Your task to perform on an android device: find snoozed emails in the gmail app Image 0: 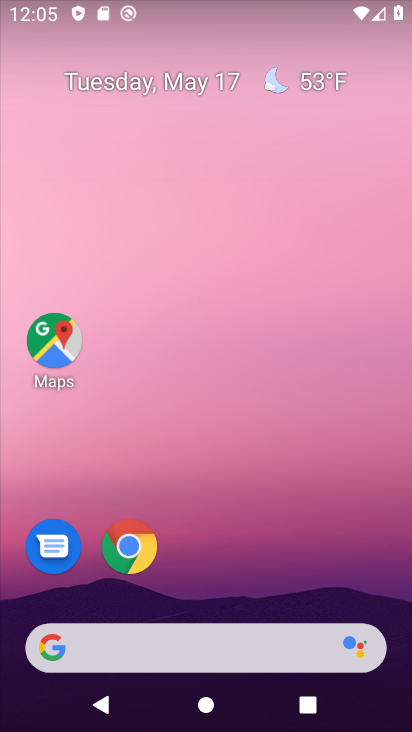
Step 0: drag from (159, 619) to (296, 10)
Your task to perform on an android device: find snoozed emails in the gmail app Image 1: 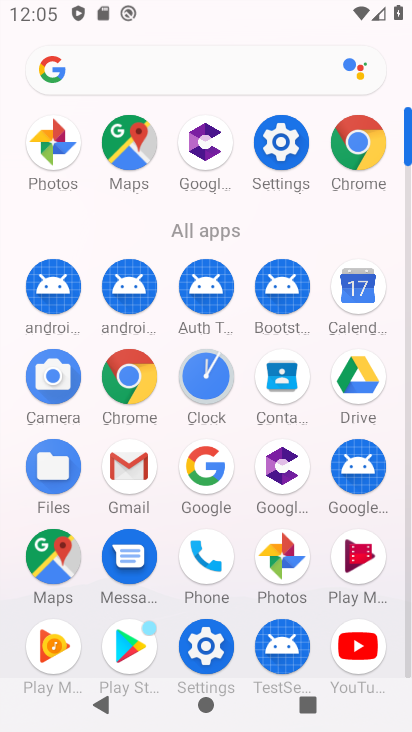
Step 1: click (127, 474)
Your task to perform on an android device: find snoozed emails in the gmail app Image 2: 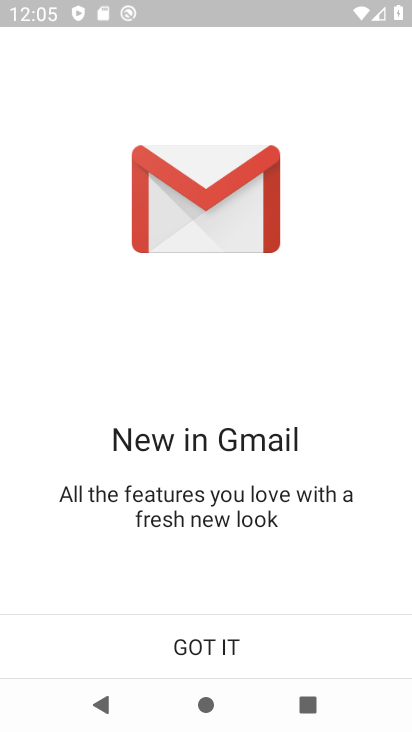
Step 2: click (185, 653)
Your task to perform on an android device: find snoozed emails in the gmail app Image 3: 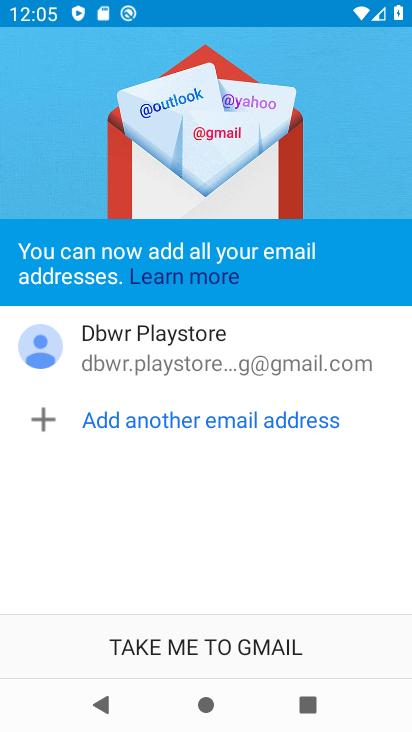
Step 3: click (193, 649)
Your task to perform on an android device: find snoozed emails in the gmail app Image 4: 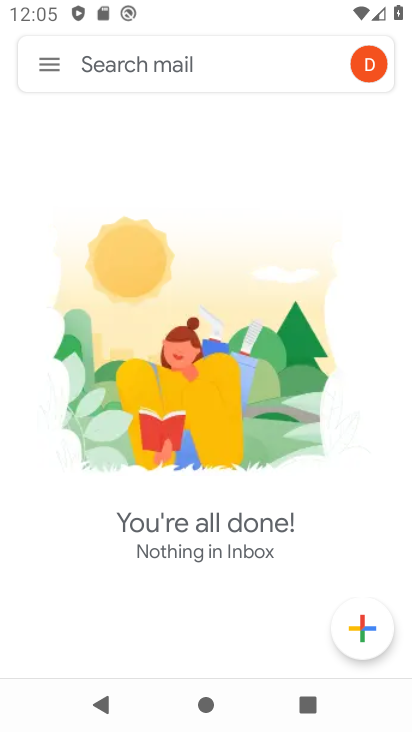
Step 4: click (46, 66)
Your task to perform on an android device: find snoozed emails in the gmail app Image 5: 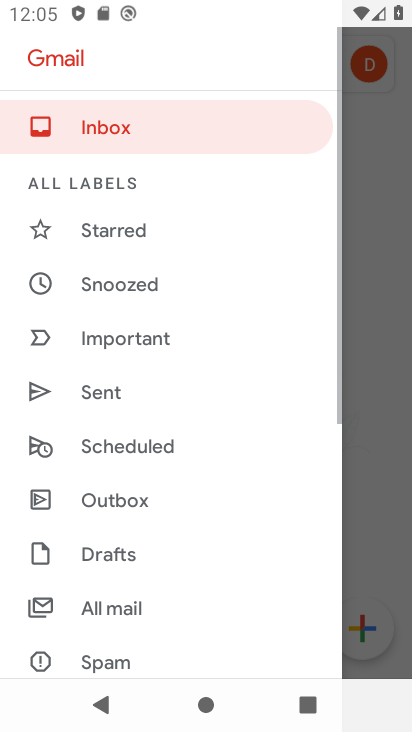
Step 5: click (124, 293)
Your task to perform on an android device: find snoozed emails in the gmail app Image 6: 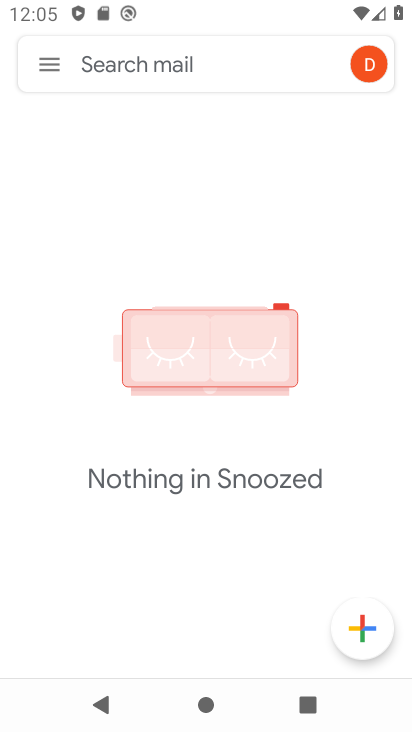
Step 6: task complete